Your task to perform on an android device: open a bookmark in the chrome app Image 0: 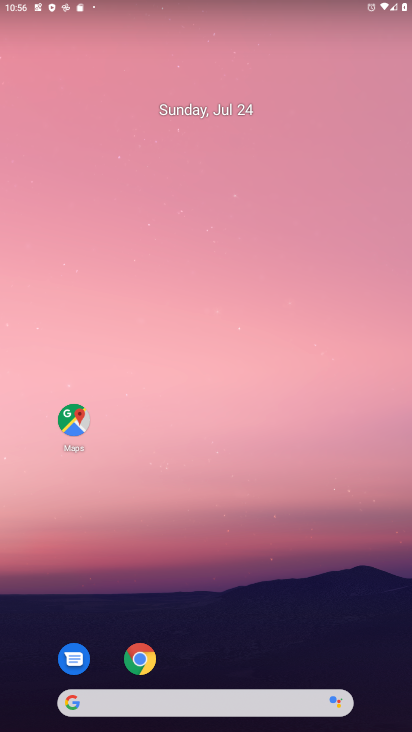
Step 0: click (140, 660)
Your task to perform on an android device: open a bookmark in the chrome app Image 1: 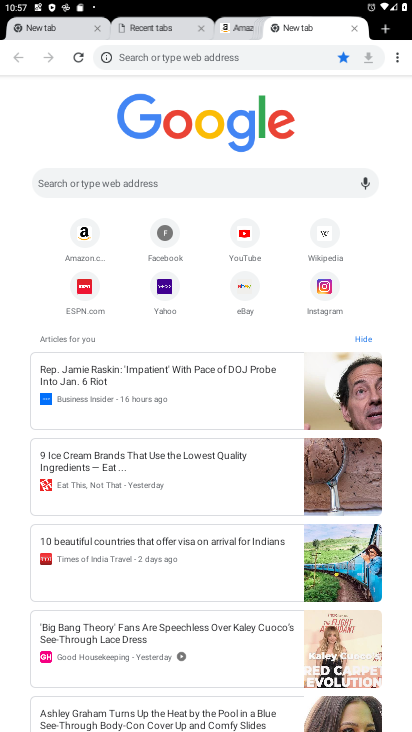
Step 1: click (398, 54)
Your task to perform on an android device: open a bookmark in the chrome app Image 2: 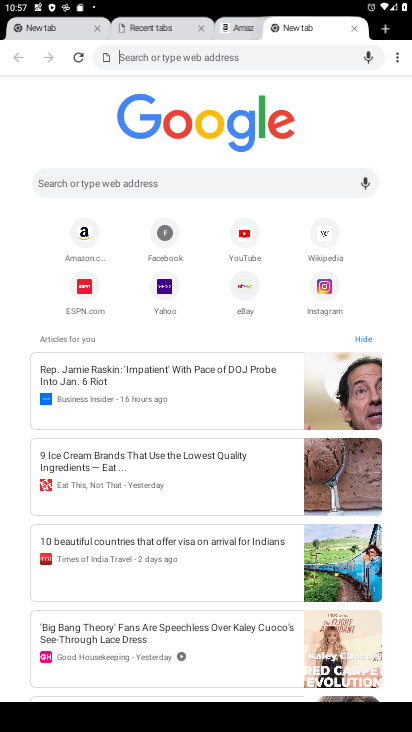
Step 2: click (397, 53)
Your task to perform on an android device: open a bookmark in the chrome app Image 3: 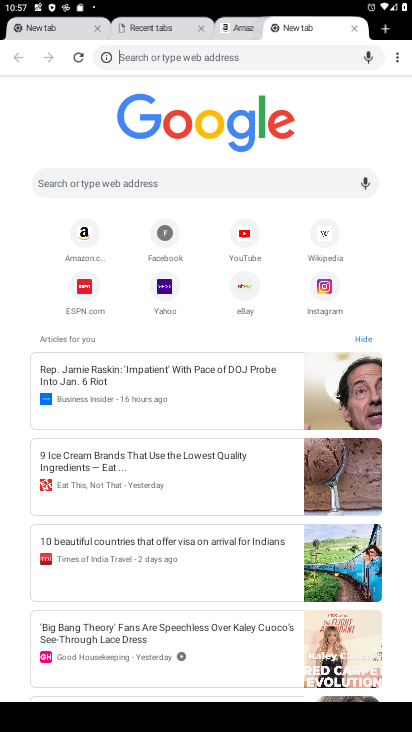
Step 3: click (397, 53)
Your task to perform on an android device: open a bookmark in the chrome app Image 4: 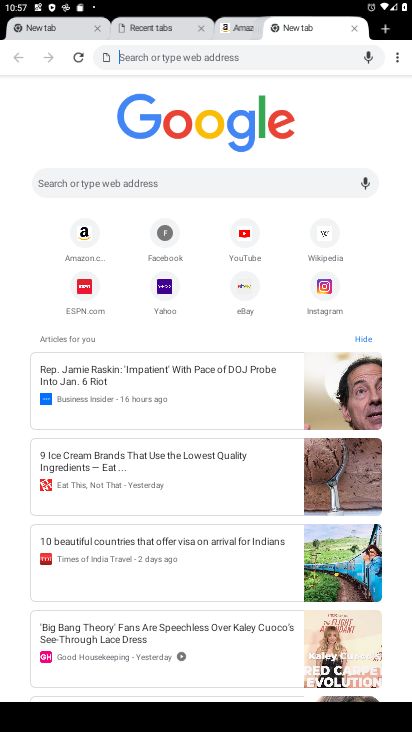
Step 4: click (397, 53)
Your task to perform on an android device: open a bookmark in the chrome app Image 5: 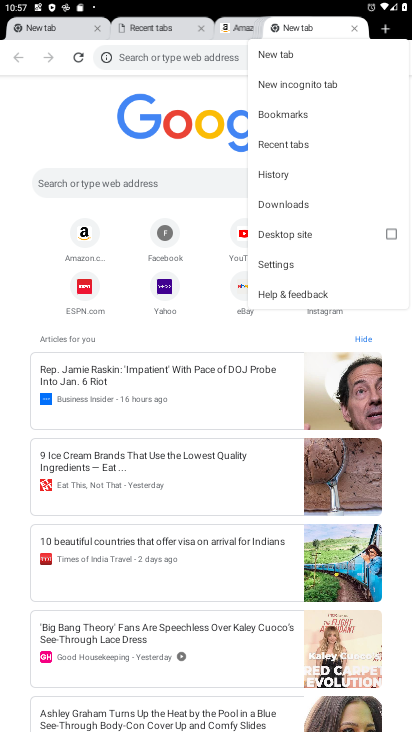
Step 5: click (397, 56)
Your task to perform on an android device: open a bookmark in the chrome app Image 6: 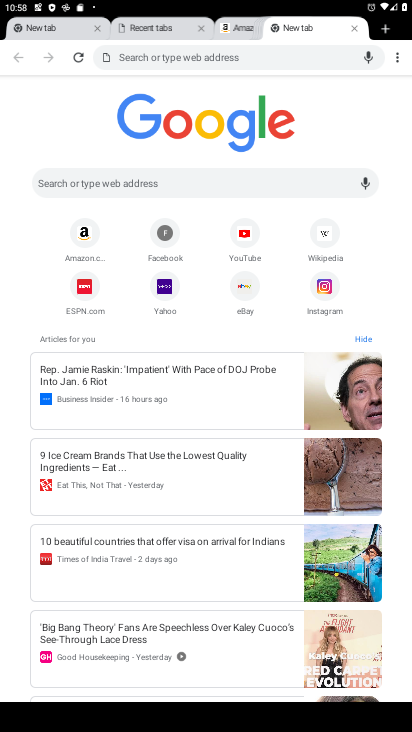
Step 6: click (399, 58)
Your task to perform on an android device: open a bookmark in the chrome app Image 7: 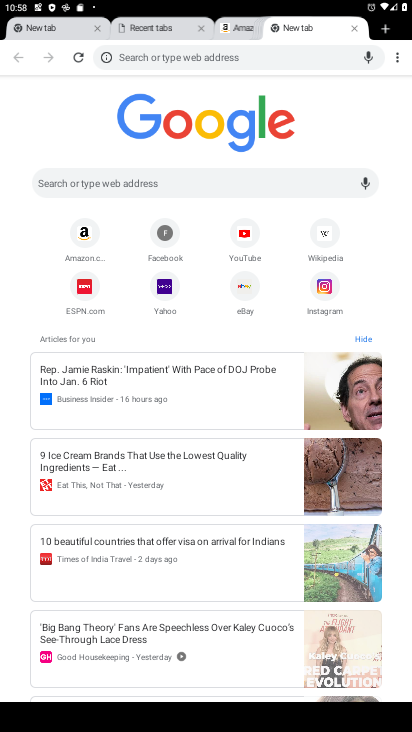
Step 7: click (399, 58)
Your task to perform on an android device: open a bookmark in the chrome app Image 8: 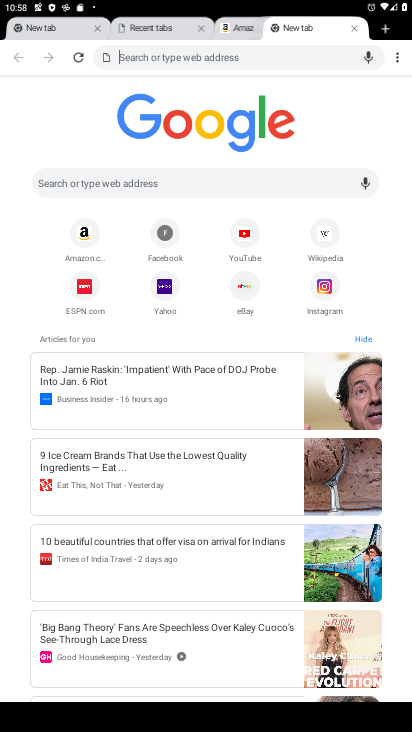
Step 8: click (395, 54)
Your task to perform on an android device: open a bookmark in the chrome app Image 9: 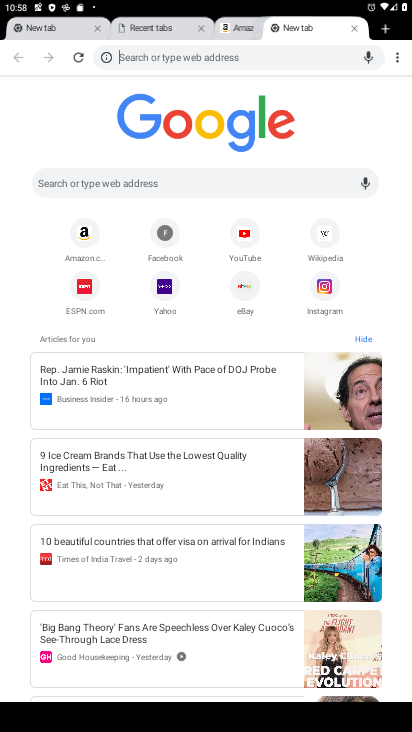
Step 9: click (395, 55)
Your task to perform on an android device: open a bookmark in the chrome app Image 10: 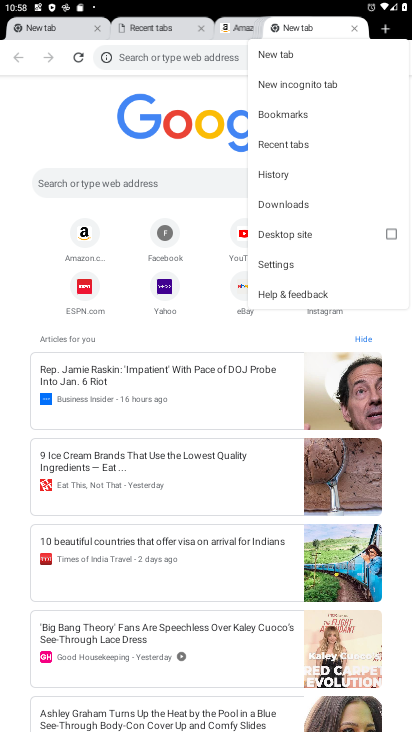
Step 10: click (281, 112)
Your task to perform on an android device: open a bookmark in the chrome app Image 11: 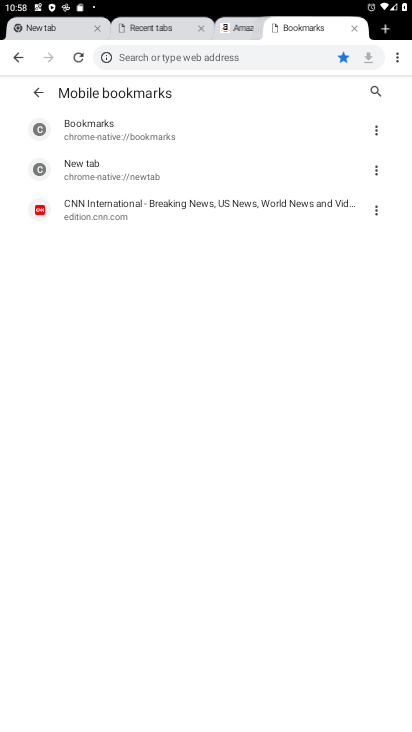
Step 11: click (86, 202)
Your task to perform on an android device: open a bookmark in the chrome app Image 12: 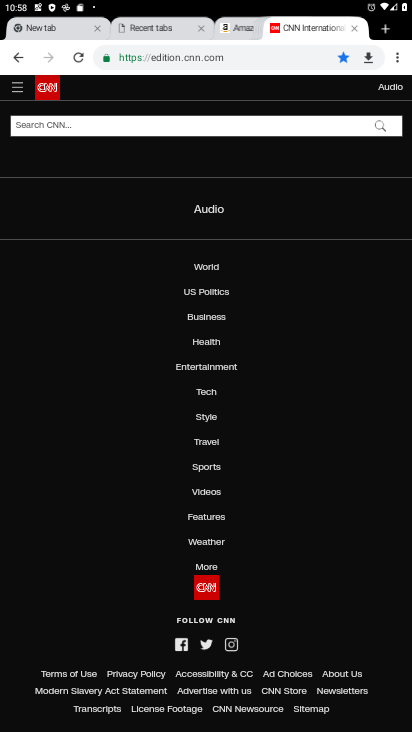
Step 12: task complete